Your task to perform on an android device: Go to settings Image 0: 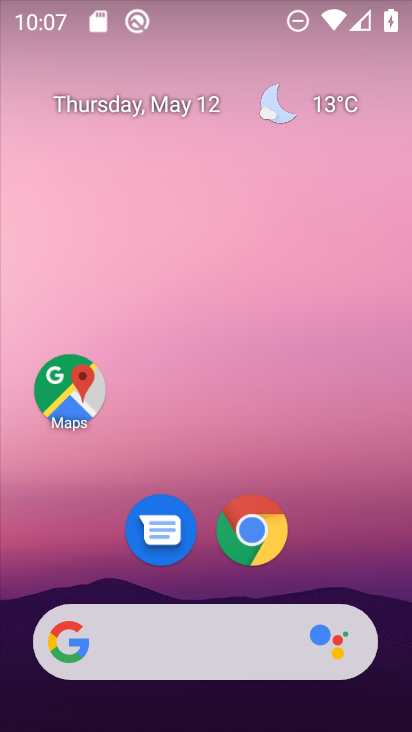
Step 0: drag from (319, 504) to (378, 39)
Your task to perform on an android device: Go to settings Image 1: 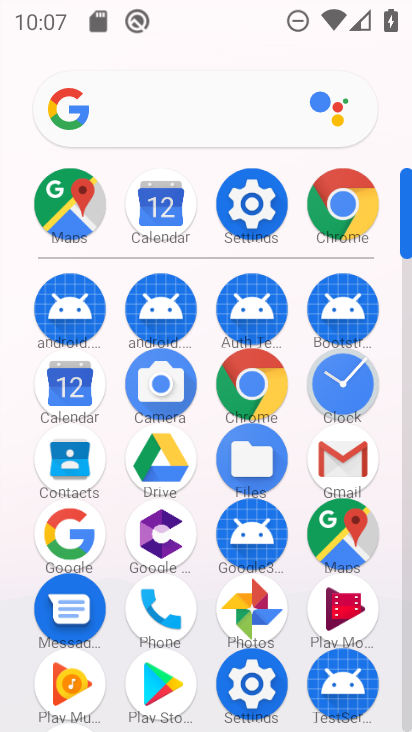
Step 1: click (251, 206)
Your task to perform on an android device: Go to settings Image 2: 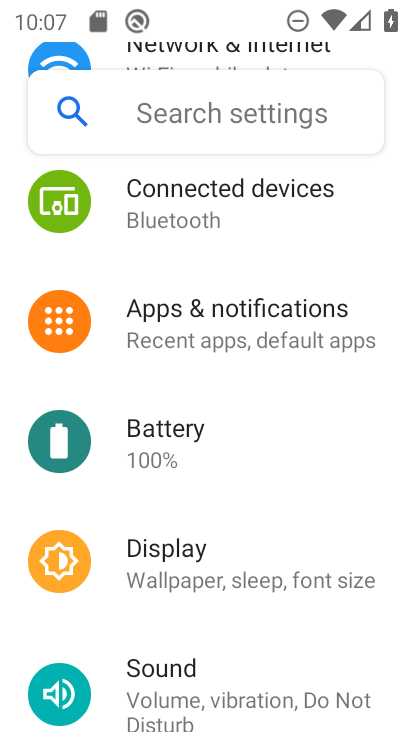
Step 2: task complete